Your task to perform on an android device: change the clock display to digital Image 0: 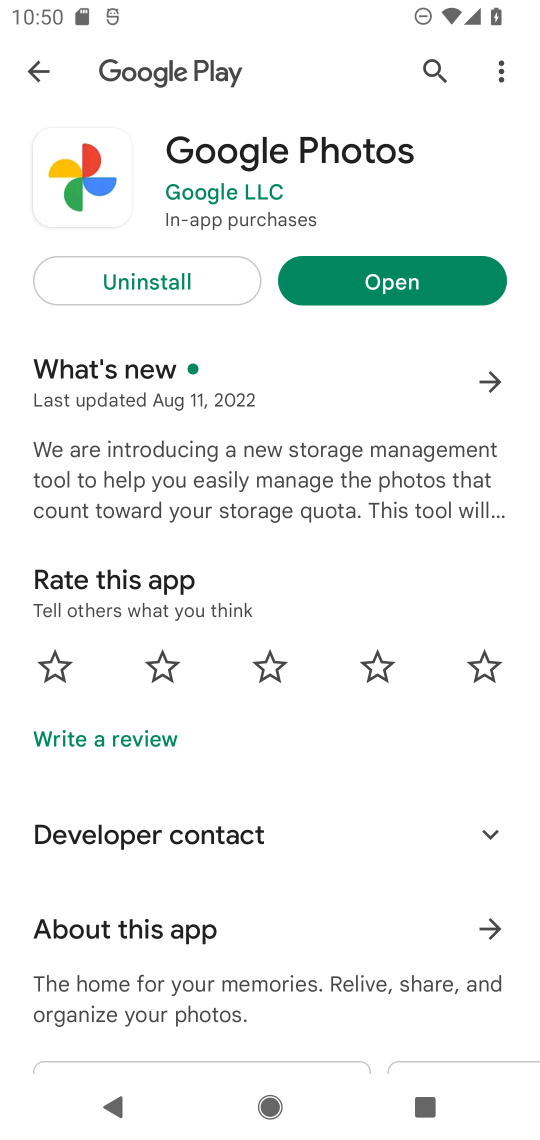
Step 0: press home button
Your task to perform on an android device: change the clock display to digital Image 1: 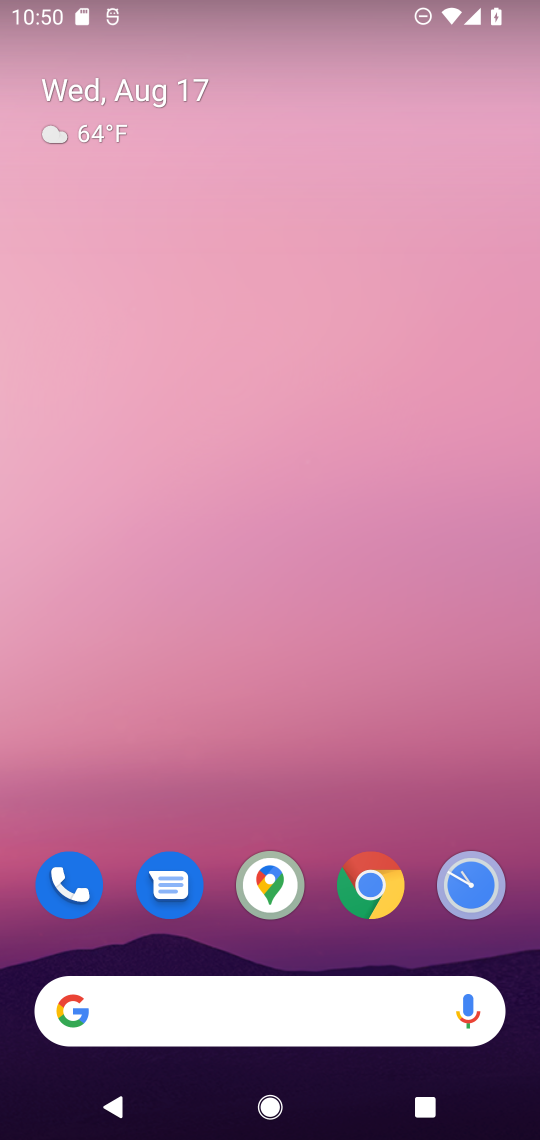
Step 1: click (469, 883)
Your task to perform on an android device: change the clock display to digital Image 2: 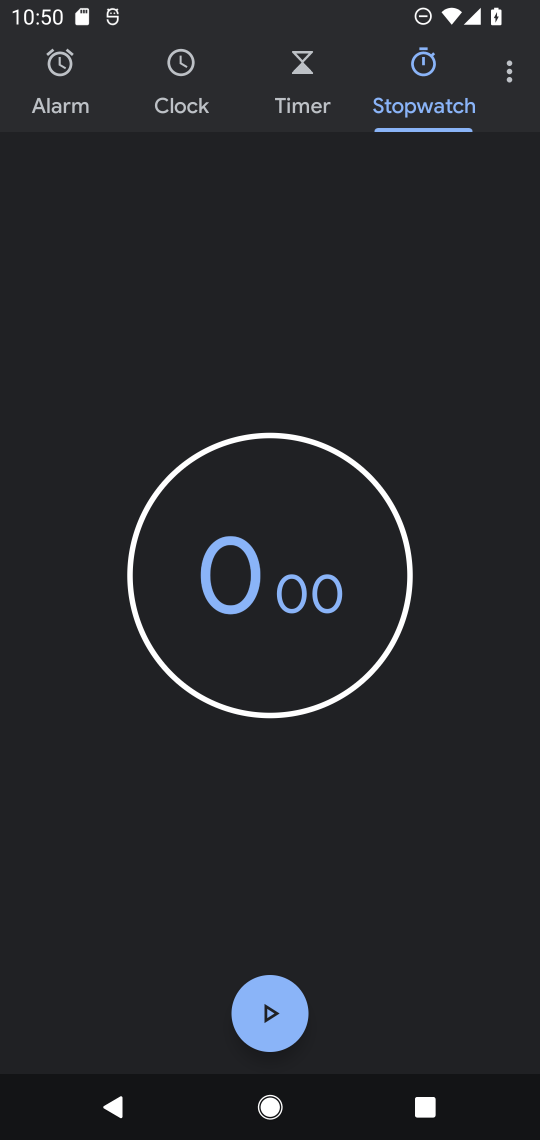
Step 2: click (503, 79)
Your task to perform on an android device: change the clock display to digital Image 3: 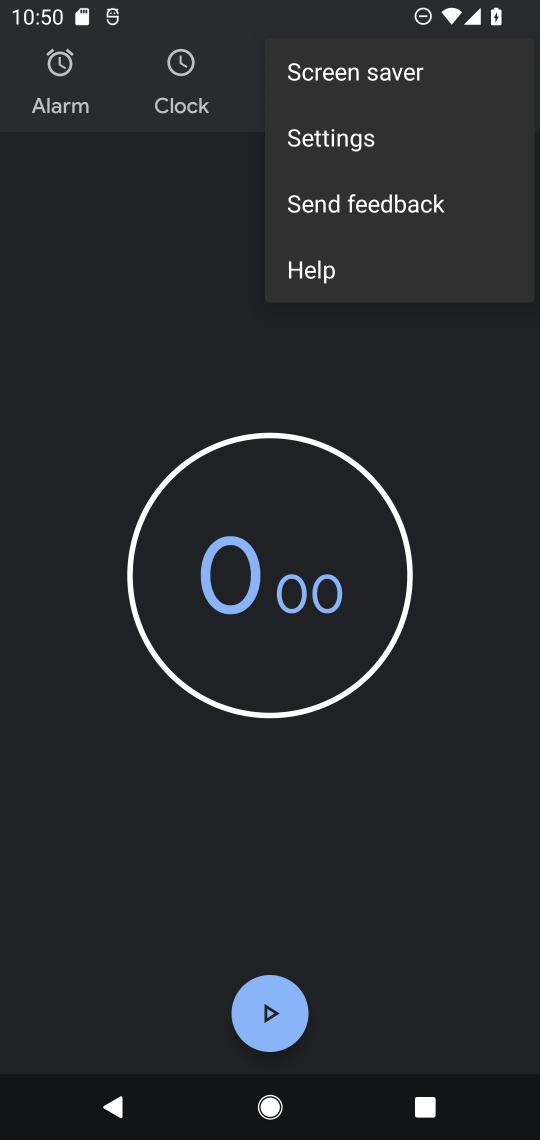
Step 3: click (325, 138)
Your task to perform on an android device: change the clock display to digital Image 4: 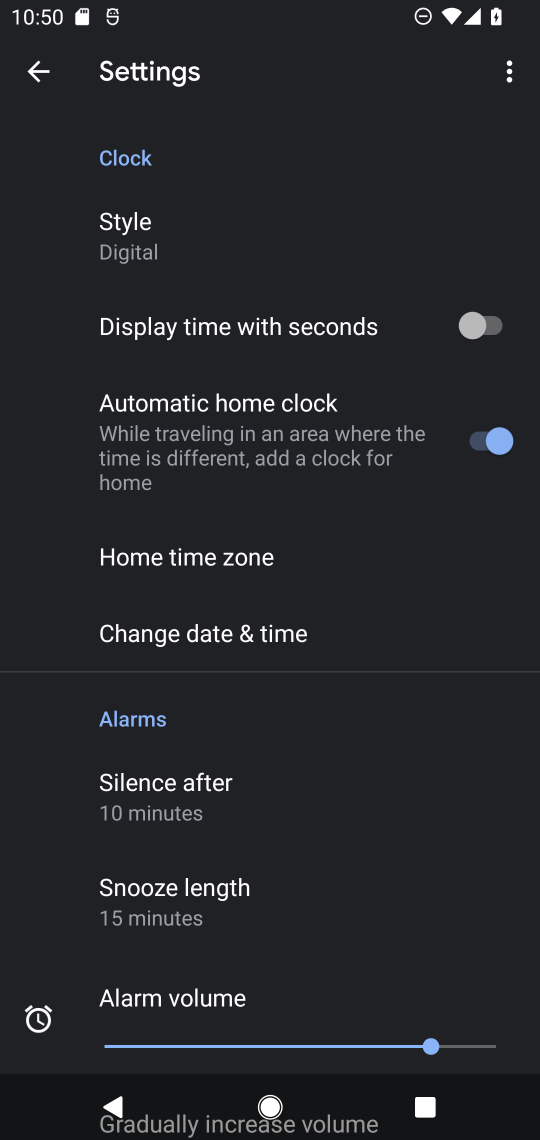
Step 4: click (325, 138)
Your task to perform on an android device: change the clock display to digital Image 5: 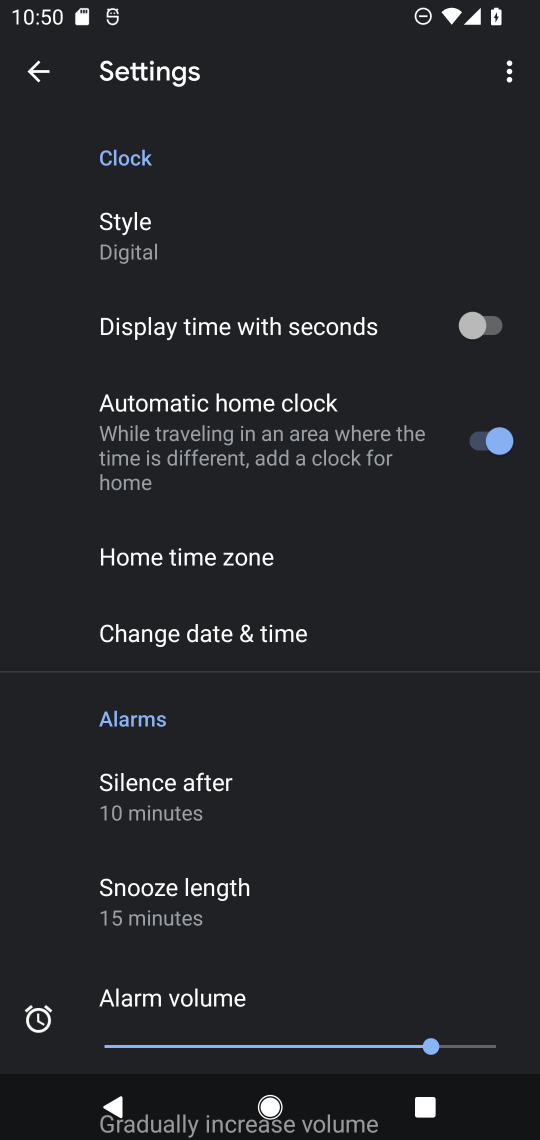
Step 5: task complete